Your task to perform on an android device: toggle wifi Image 0: 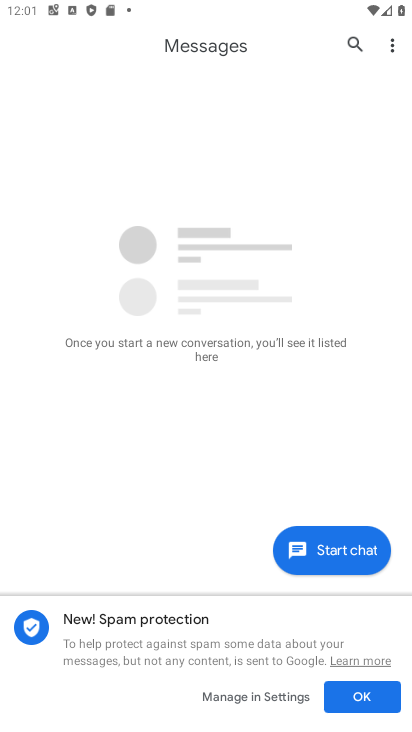
Step 0: press home button
Your task to perform on an android device: toggle wifi Image 1: 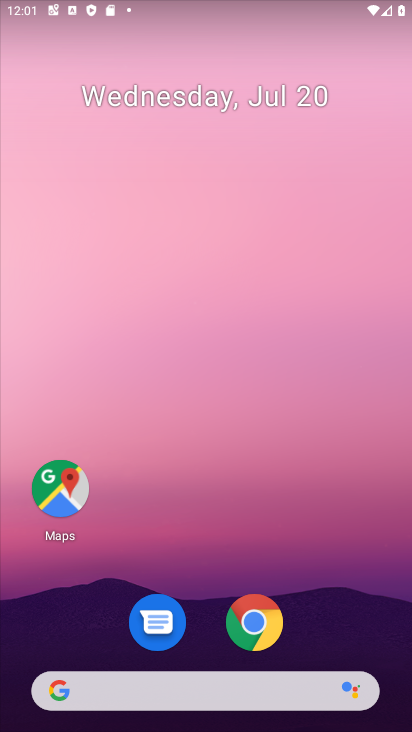
Step 1: drag from (191, 279) to (194, 102)
Your task to perform on an android device: toggle wifi Image 2: 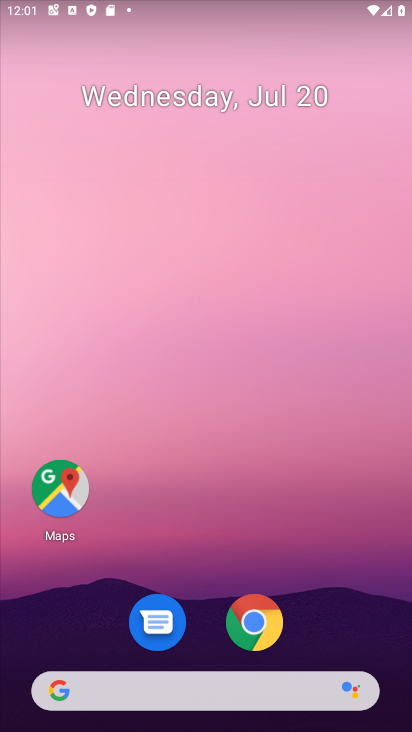
Step 2: drag from (324, 620) to (290, 135)
Your task to perform on an android device: toggle wifi Image 3: 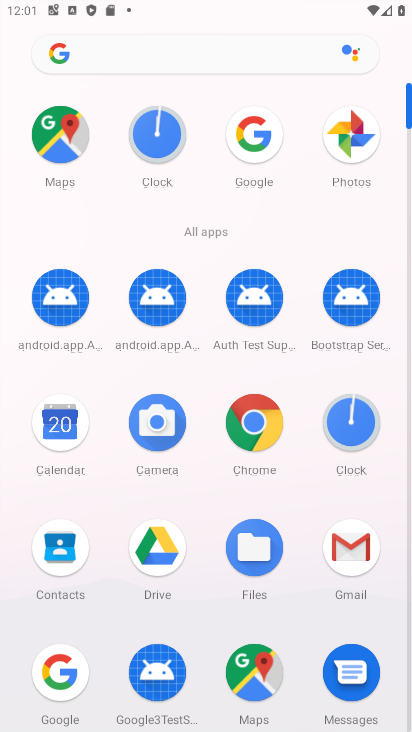
Step 3: drag from (166, 515) to (189, 159)
Your task to perform on an android device: toggle wifi Image 4: 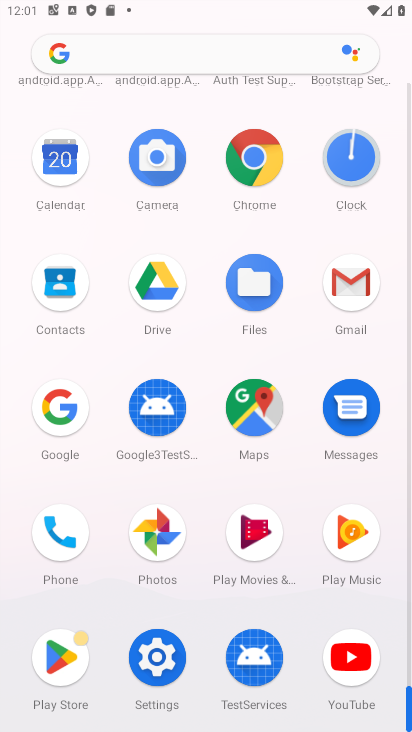
Step 4: drag from (159, 640) to (116, 185)
Your task to perform on an android device: toggle wifi Image 5: 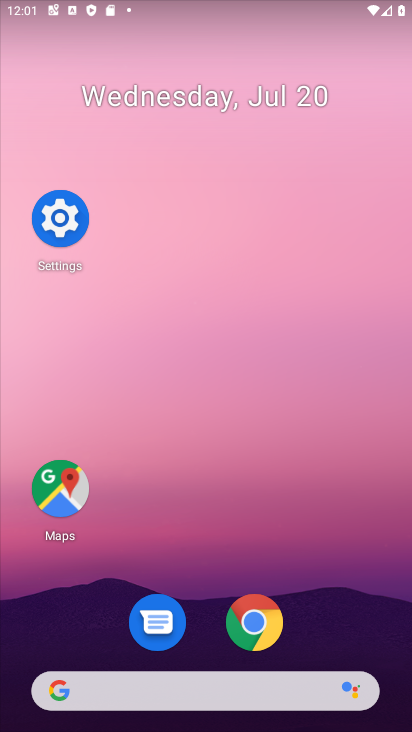
Step 5: click (71, 224)
Your task to perform on an android device: toggle wifi Image 6: 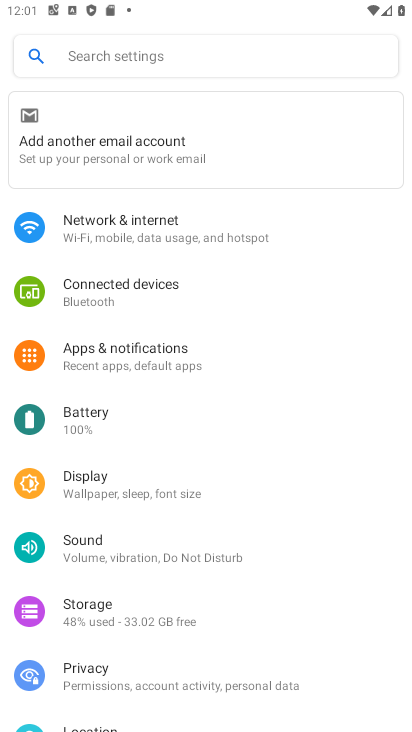
Step 6: click (182, 225)
Your task to perform on an android device: toggle wifi Image 7: 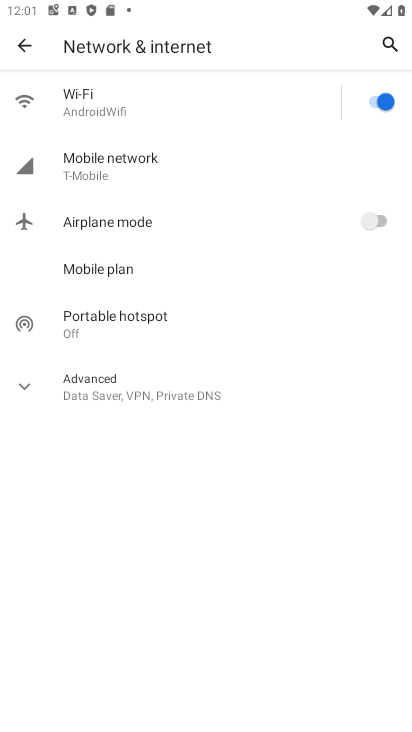
Step 7: click (387, 111)
Your task to perform on an android device: toggle wifi Image 8: 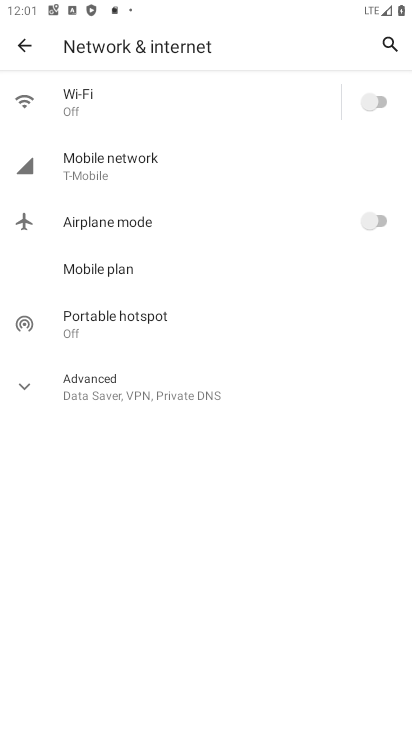
Step 8: task complete